Your task to perform on an android device: Check the weather Image 0: 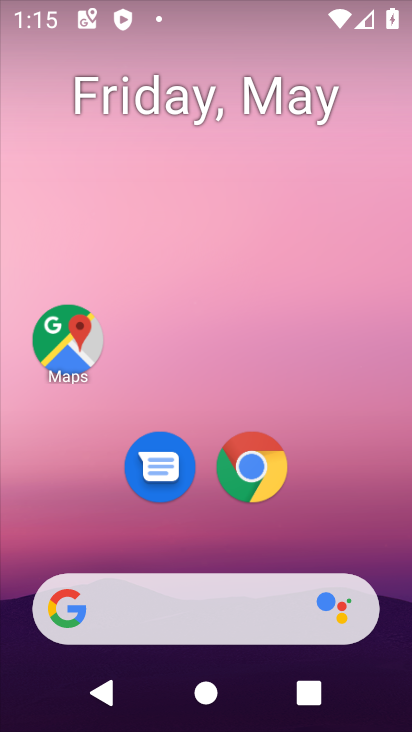
Step 0: drag from (327, 534) to (273, 74)
Your task to perform on an android device: Check the weather Image 1: 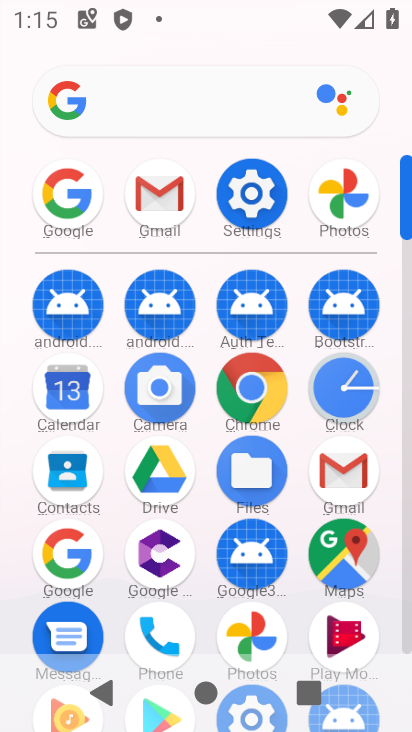
Step 1: click (62, 192)
Your task to perform on an android device: Check the weather Image 2: 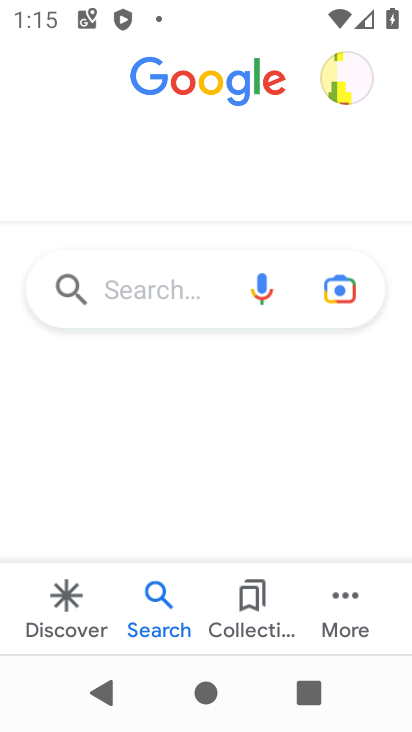
Step 2: click (160, 293)
Your task to perform on an android device: Check the weather Image 3: 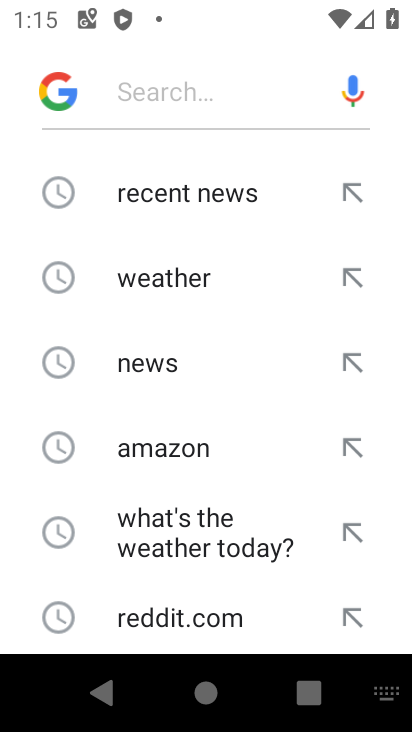
Step 3: click (162, 282)
Your task to perform on an android device: Check the weather Image 4: 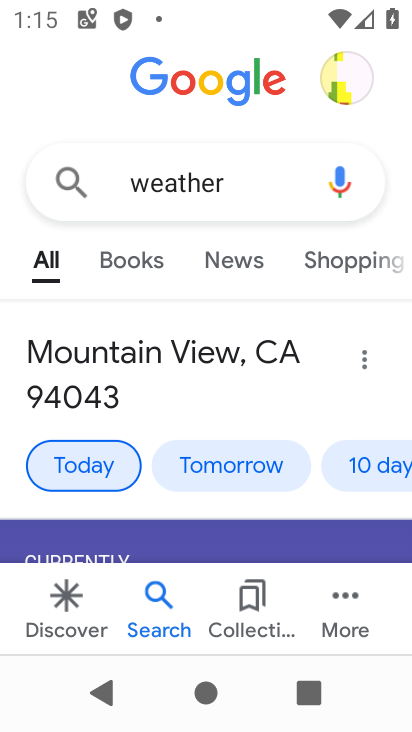
Step 4: task complete